Your task to perform on an android device: change the clock display to show seconds Image 0: 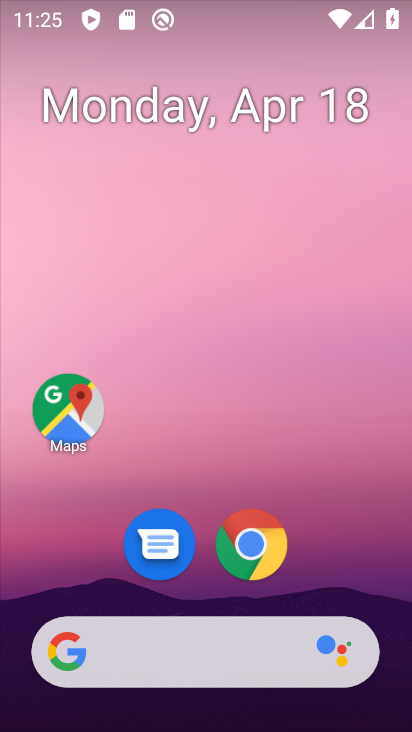
Step 0: drag from (389, 565) to (345, 2)
Your task to perform on an android device: change the clock display to show seconds Image 1: 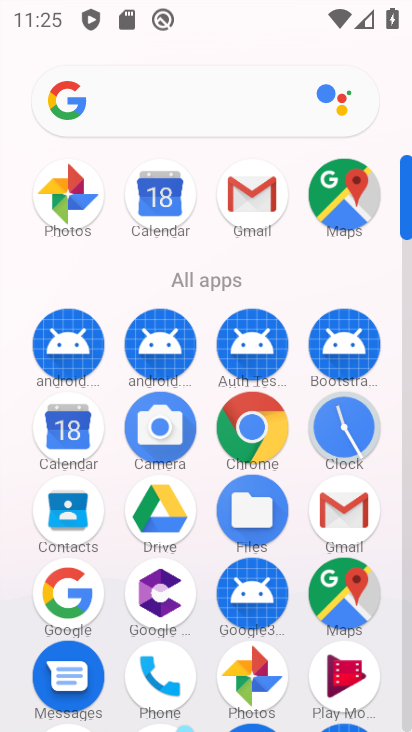
Step 1: click (344, 435)
Your task to perform on an android device: change the clock display to show seconds Image 2: 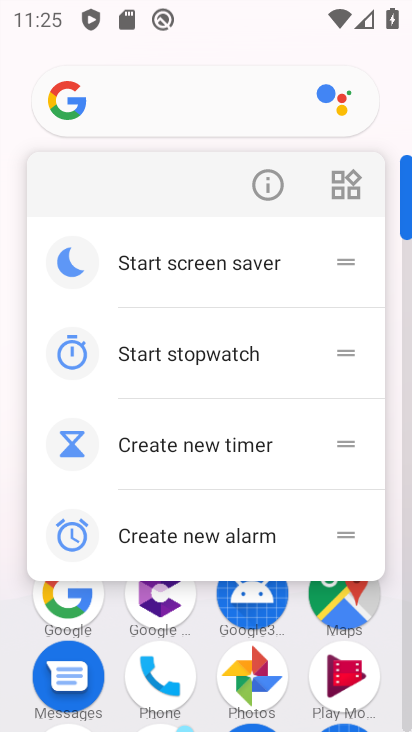
Step 2: click (398, 332)
Your task to perform on an android device: change the clock display to show seconds Image 3: 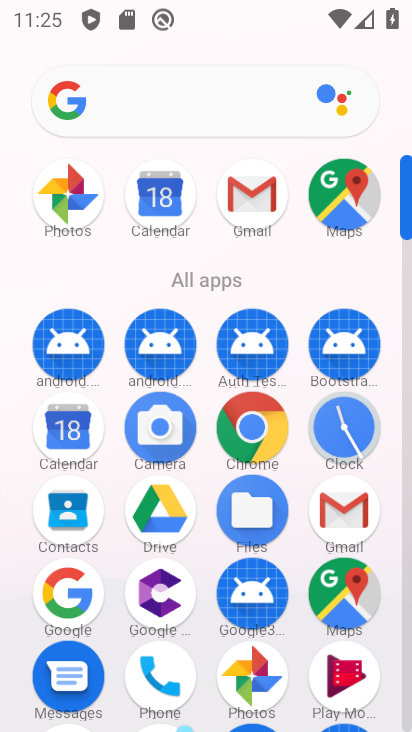
Step 3: click (366, 426)
Your task to perform on an android device: change the clock display to show seconds Image 4: 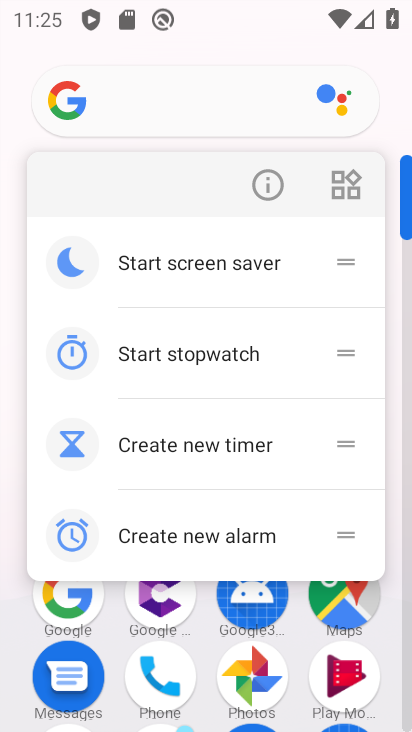
Step 4: click (16, 161)
Your task to perform on an android device: change the clock display to show seconds Image 5: 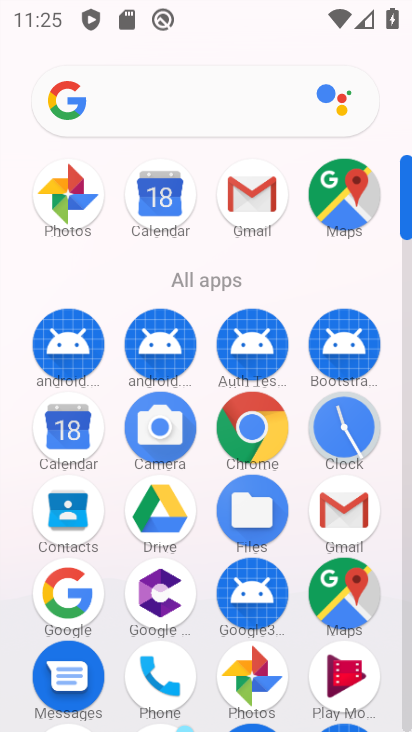
Step 5: click (347, 430)
Your task to perform on an android device: change the clock display to show seconds Image 6: 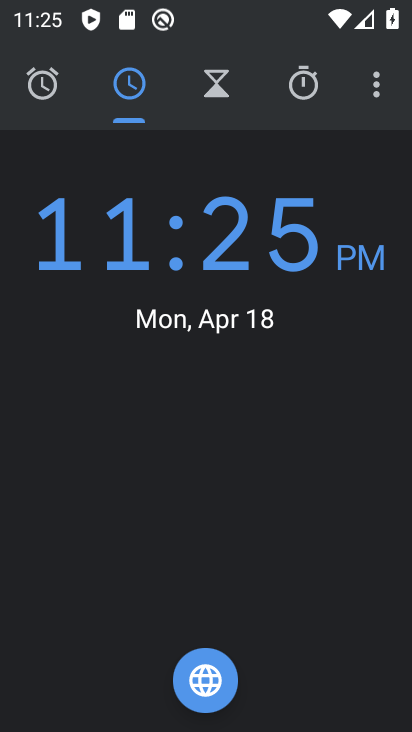
Step 6: click (377, 88)
Your task to perform on an android device: change the clock display to show seconds Image 7: 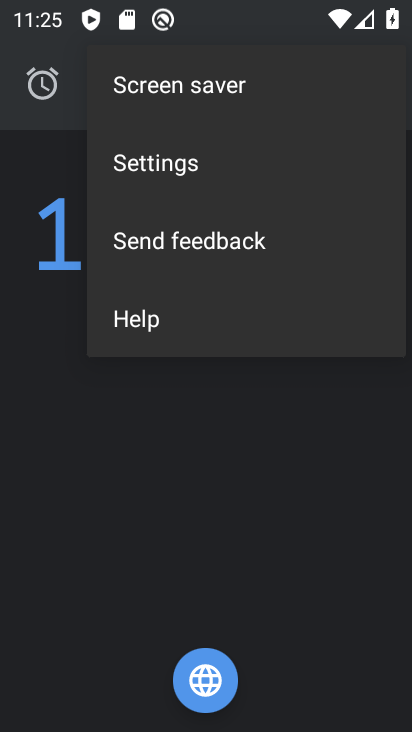
Step 7: click (180, 167)
Your task to perform on an android device: change the clock display to show seconds Image 8: 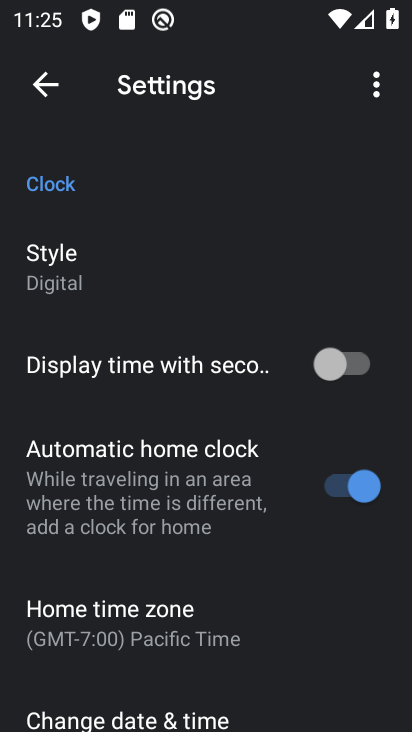
Step 8: click (342, 371)
Your task to perform on an android device: change the clock display to show seconds Image 9: 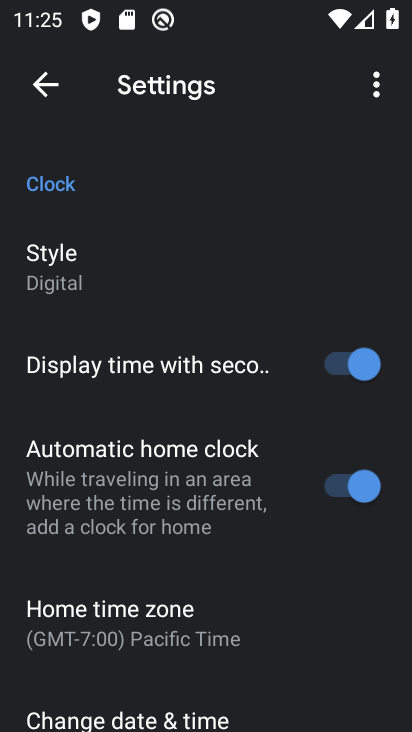
Step 9: task complete